Your task to perform on an android device: open a bookmark in the chrome app Image 0: 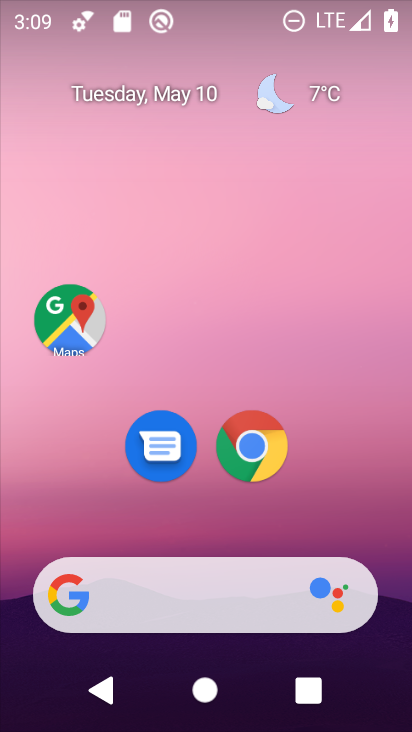
Step 0: click (268, 449)
Your task to perform on an android device: open a bookmark in the chrome app Image 1: 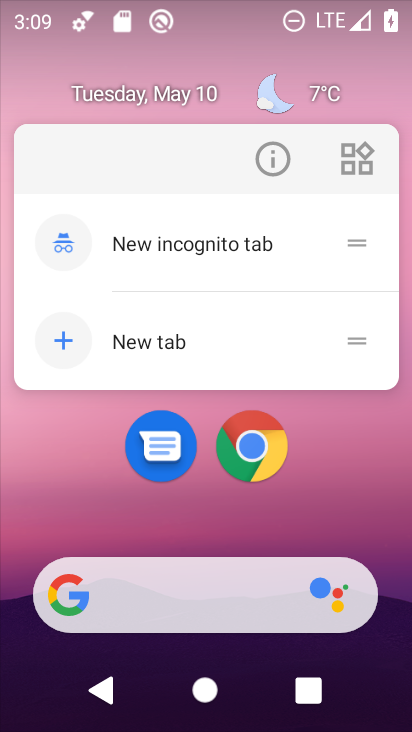
Step 1: click (245, 455)
Your task to perform on an android device: open a bookmark in the chrome app Image 2: 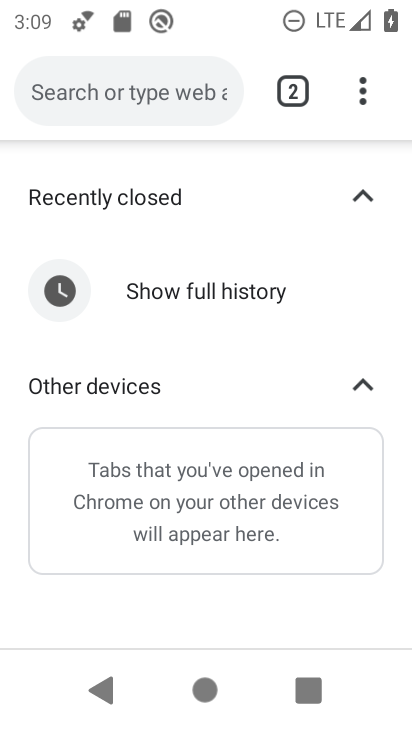
Step 2: click (360, 100)
Your task to perform on an android device: open a bookmark in the chrome app Image 3: 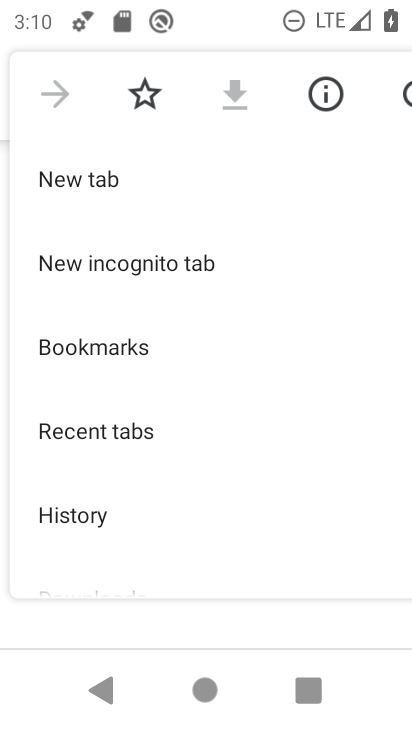
Step 3: click (148, 340)
Your task to perform on an android device: open a bookmark in the chrome app Image 4: 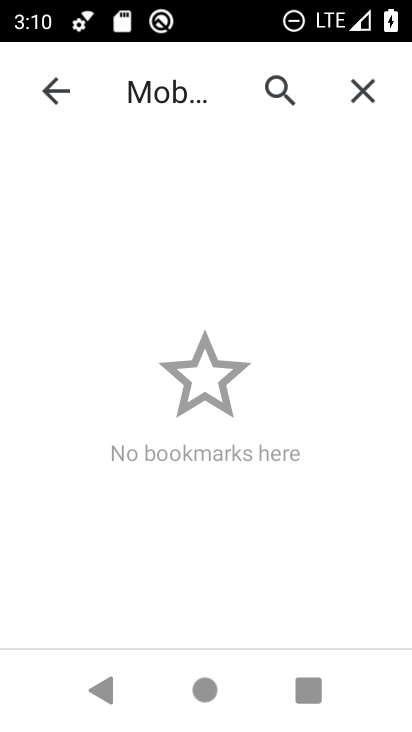
Step 4: task complete